Your task to perform on an android device: Turn on the flashlight Image 0: 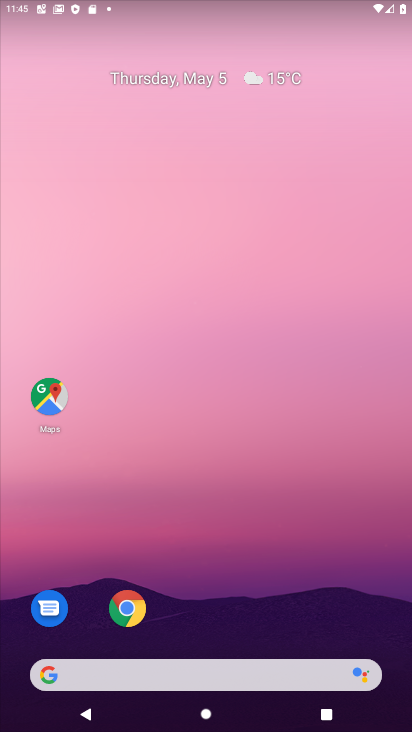
Step 0: drag from (253, 563) to (246, 102)
Your task to perform on an android device: Turn on the flashlight Image 1: 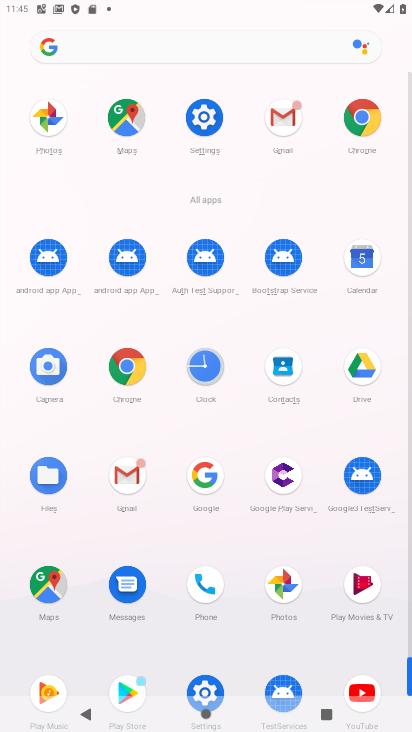
Step 1: click (200, 130)
Your task to perform on an android device: Turn on the flashlight Image 2: 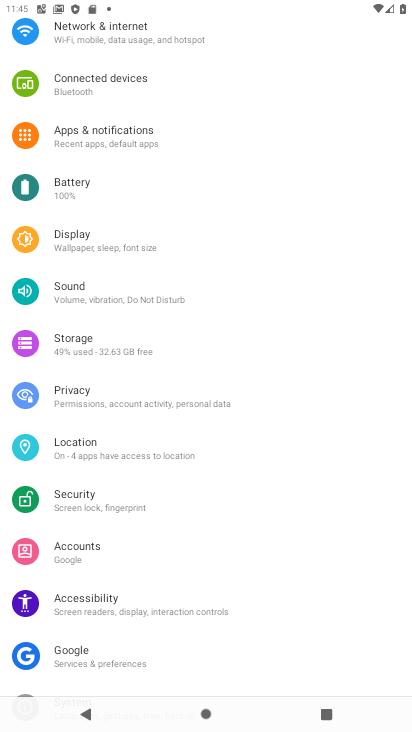
Step 2: drag from (238, 99) to (230, 613)
Your task to perform on an android device: Turn on the flashlight Image 3: 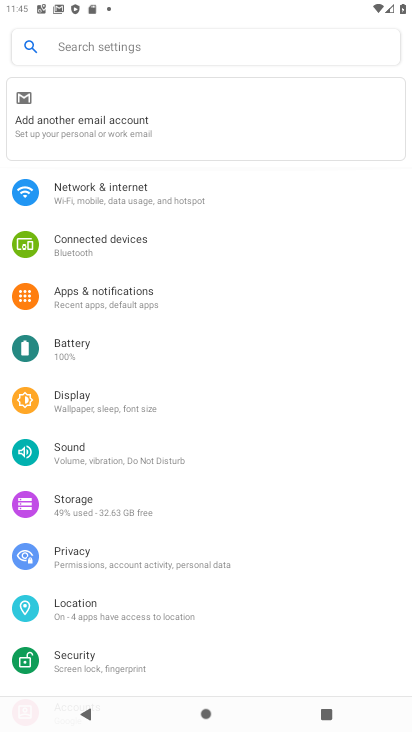
Step 3: click (148, 56)
Your task to perform on an android device: Turn on the flashlight Image 4: 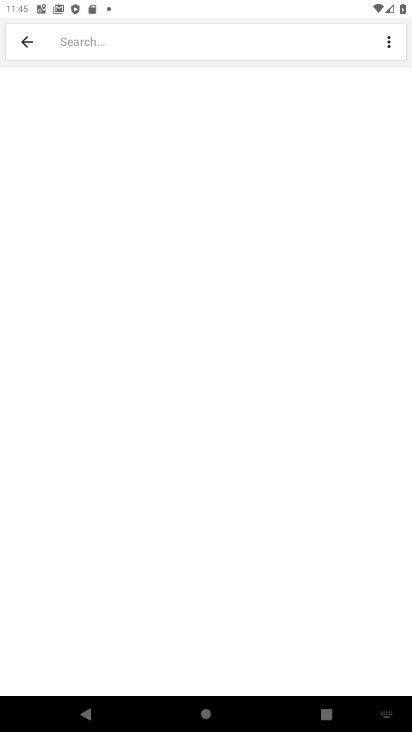
Step 4: type "flashlight"
Your task to perform on an android device: Turn on the flashlight Image 5: 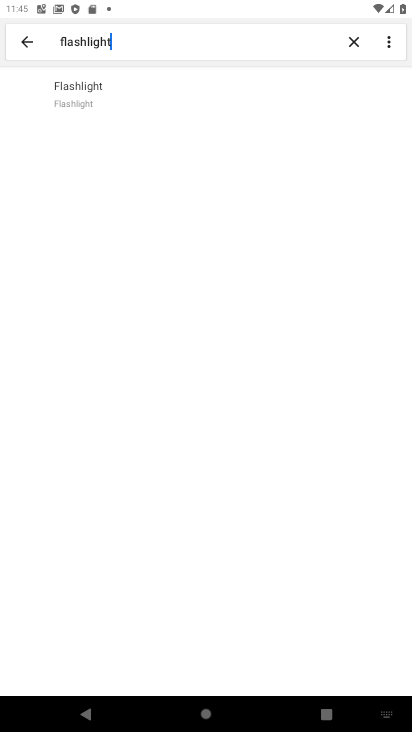
Step 5: task complete